Your task to perform on an android device: toggle sleep mode Image 0: 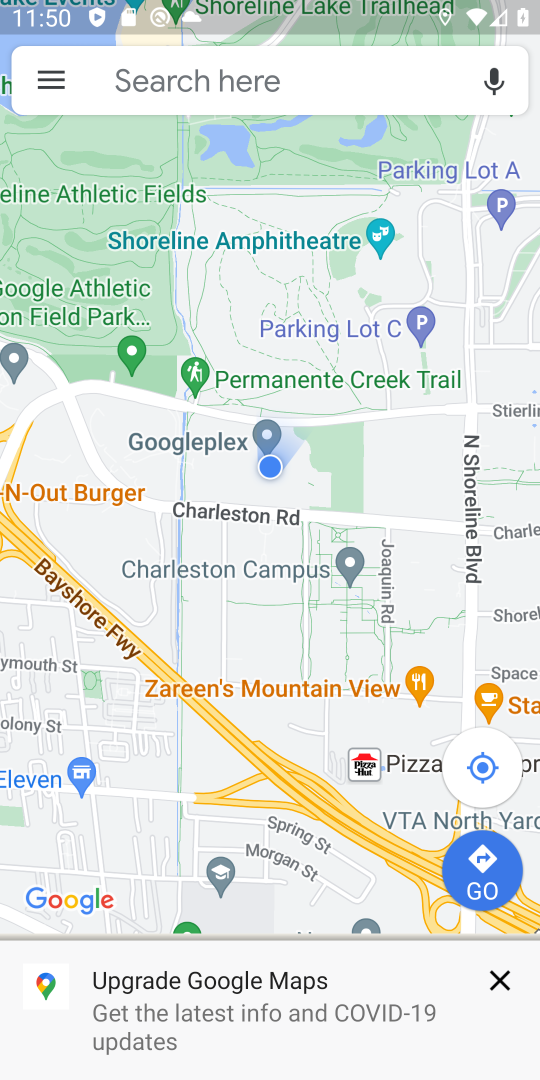
Step 0: press home button
Your task to perform on an android device: toggle sleep mode Image 1: 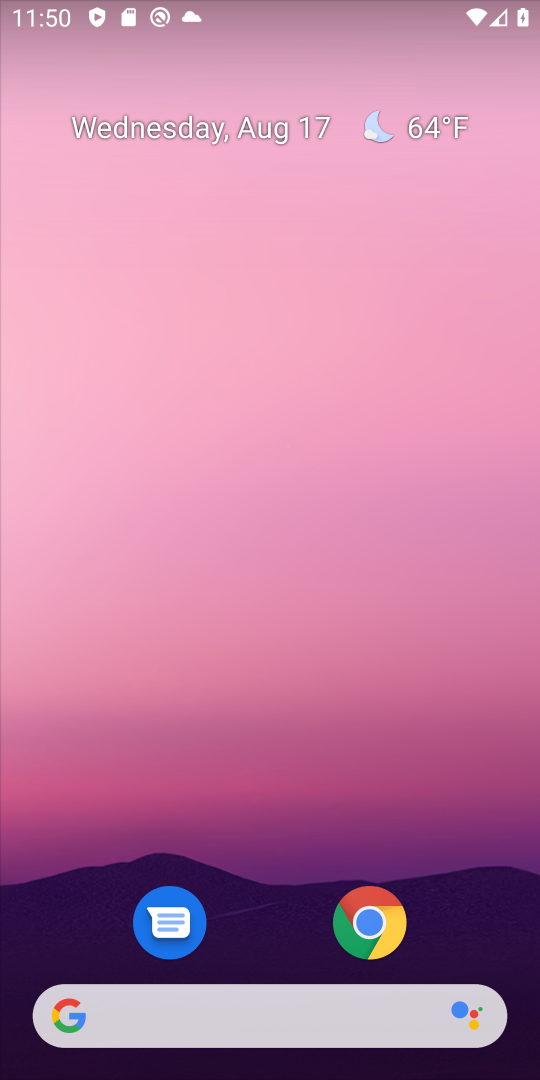
Step 1: drag from (254, 893) to (311, 111)
Your task to perform on an android device: toggle sleep mode Image 2: 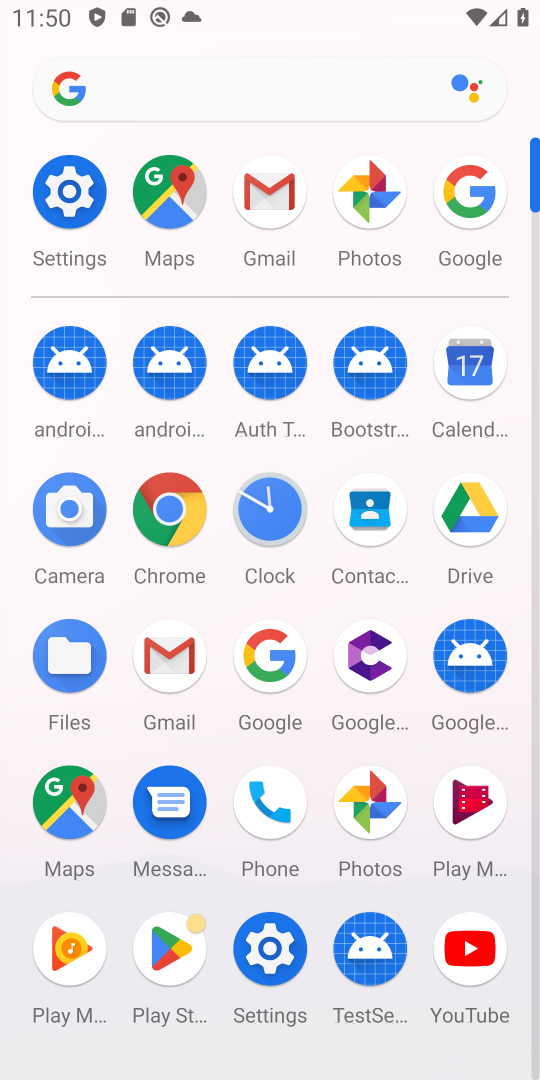
Step 2: click (68, 190)
Your task to perform on an android device: toggle sleep mode Image 3: 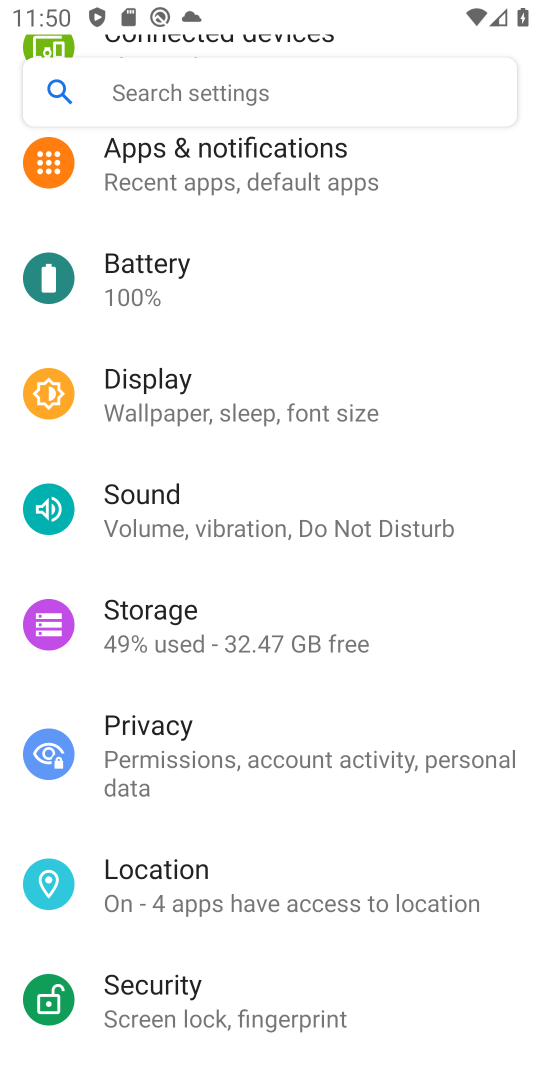
Step 3: click (140, 384)
Your task to perform on an android device: toggle sleep mode Image 4: 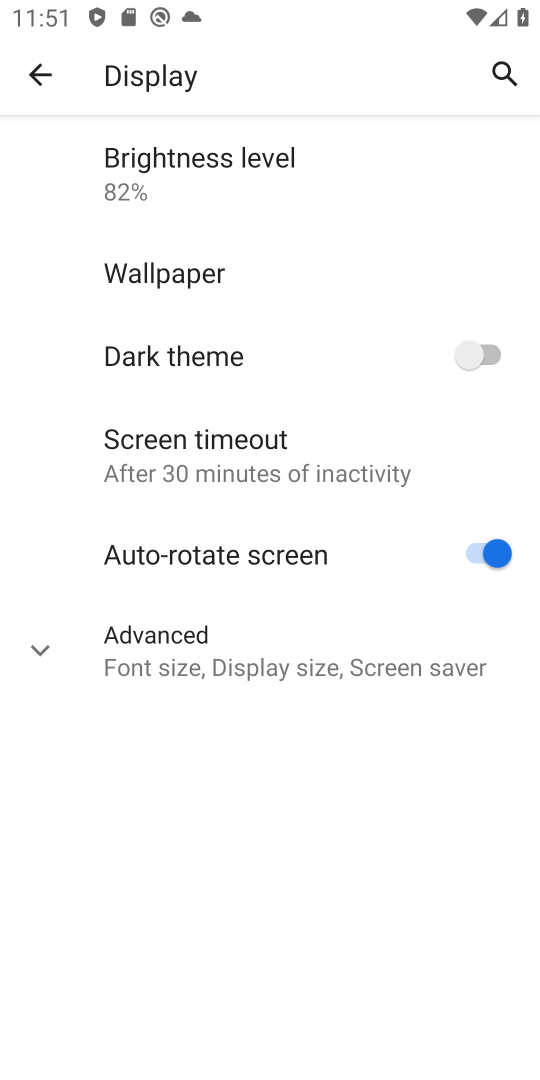
Step 4: task complete